Your task to perform on an android device: clear history in the chrome app Image 0: 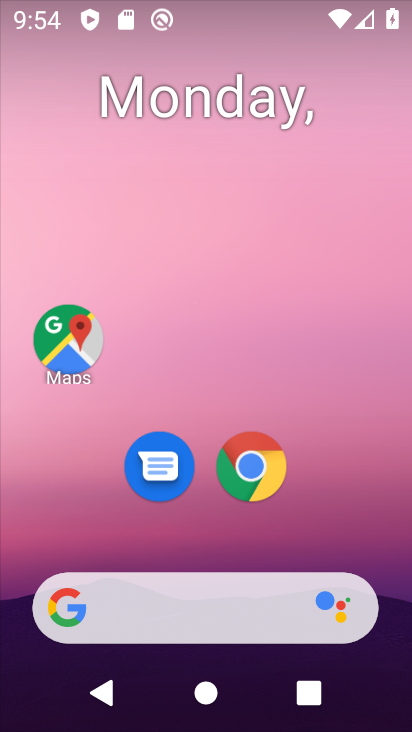
Step 0: click (250, 469)
Your task to perform on an android device: clear history in the chrome app Image 1: 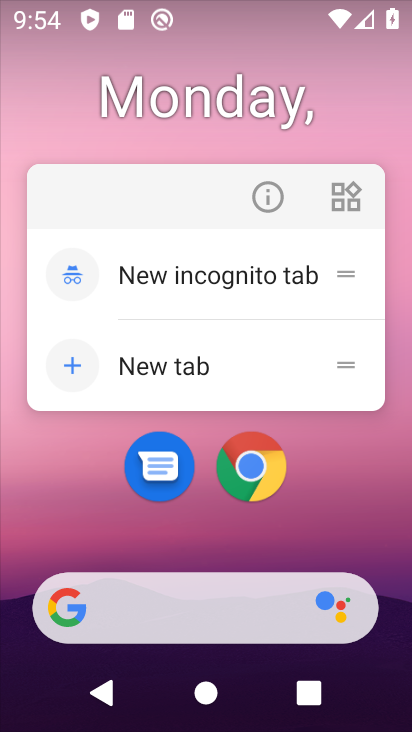
Step 1: click (262, 197)
Your task to perform on an android device: clear history in the chrome app Image 2: 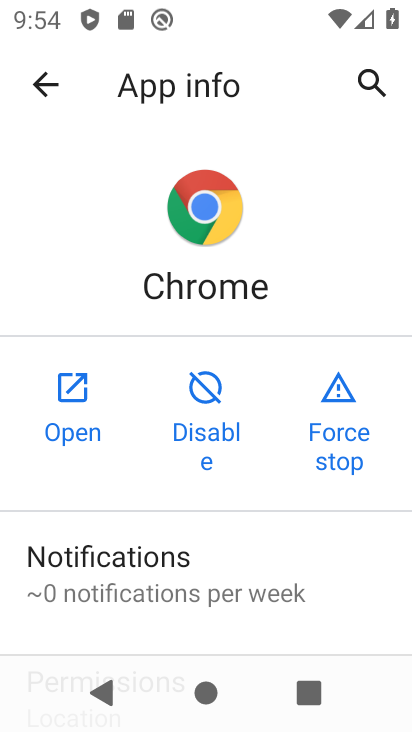
Step 2: click (68, 425)
Your task to perform on an android device: clear history in the chrome app Image 3: 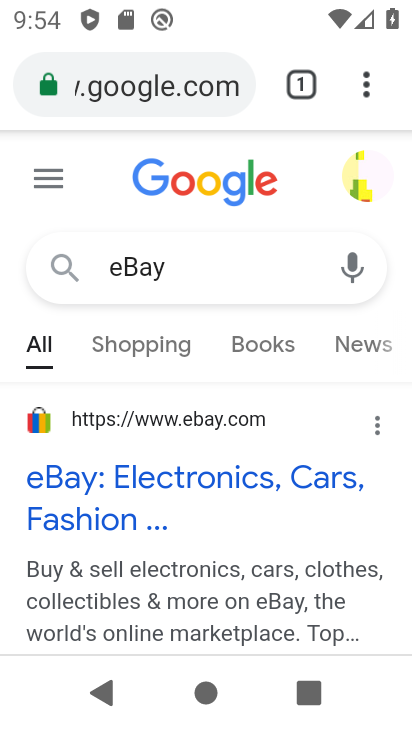
Step 3: click (367, 86)
Your task to perform on an android device: clear history in the chrome app Image 4: 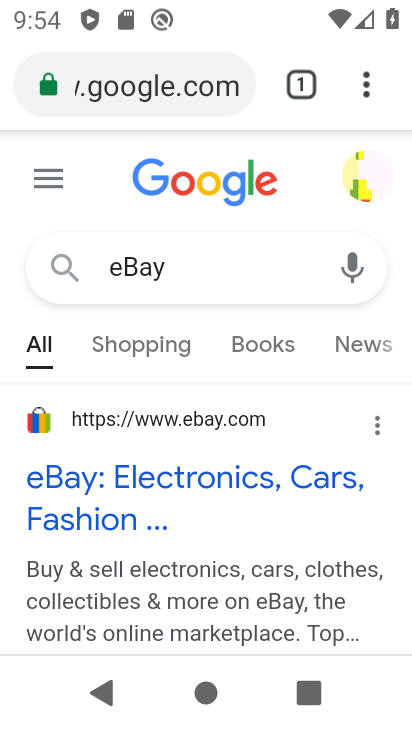
Step 4: click (367, 86)
Your task to perform on an android device: clear history in the chrome app Image 5: 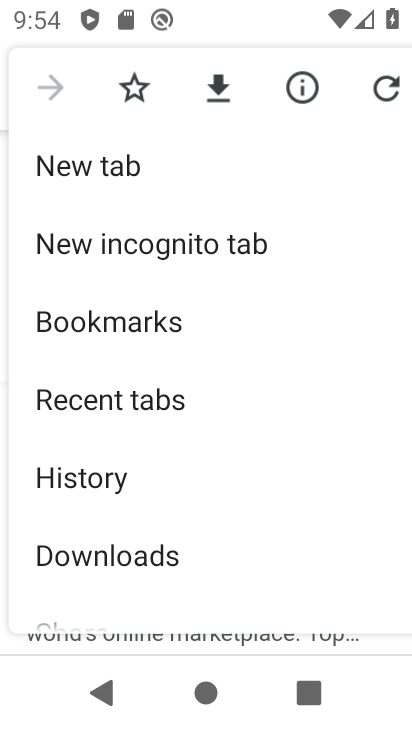
Step 5: click (116, 475)
Your task to perform on an android device: clear history in the chrome app Image 6: 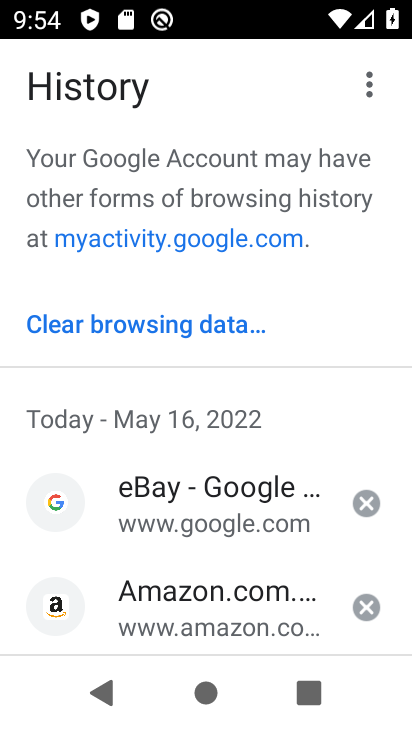
Step 6: click (123, 323)
Your task to perform on an android device: clear history in the chrome app Image 7: 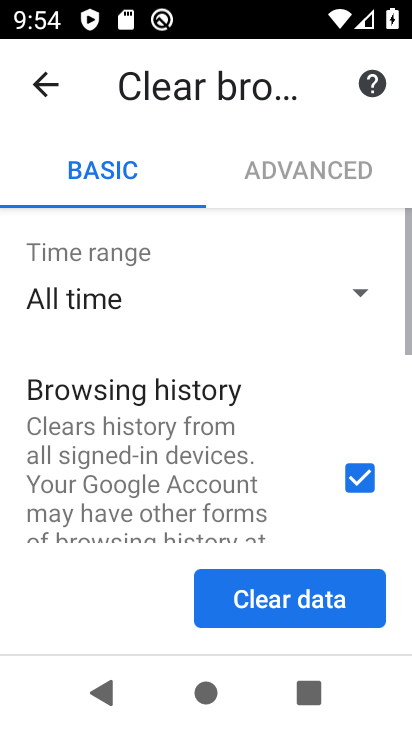
Step 7: drag from (299, 441) to (295, 136)
Your task to perform on an android device: clear history in the chrome app Image 8: 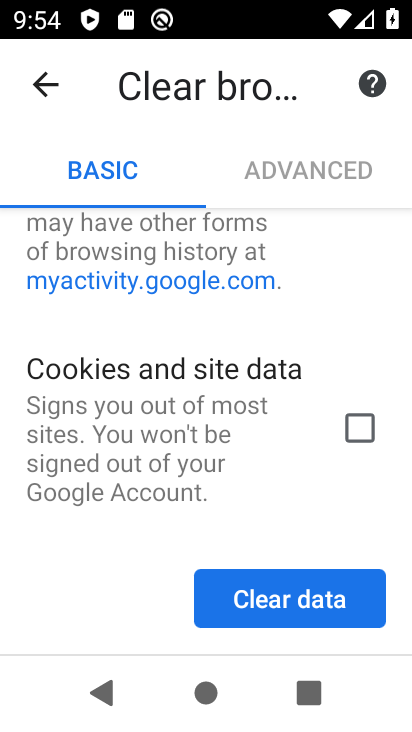
Step 8: click (286, 600)
Your task to perform on an android device: clear history in the chrome app Image 9: 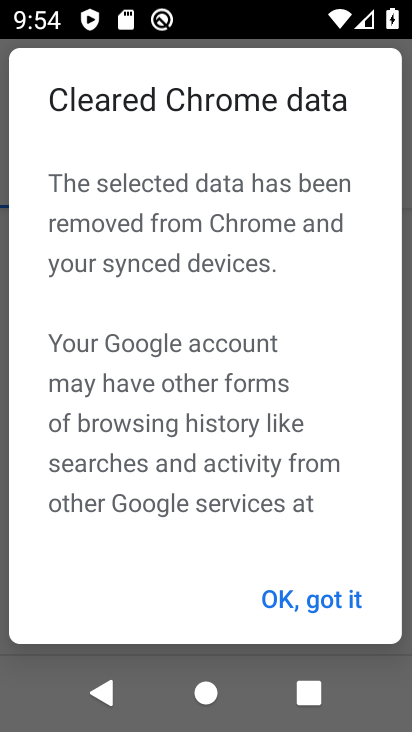
Step 9: click (319, 585)
Your task to perform on an android device: clear history in the chrome app Image 10: 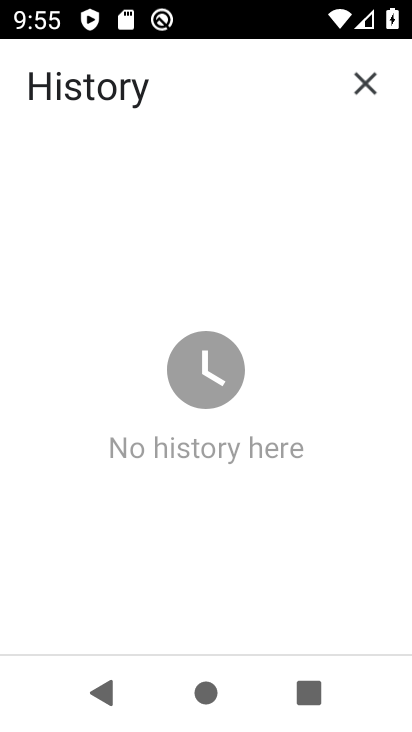
Step 10: task complete